Your task to perform on an android device: open wifi settings Image 0: 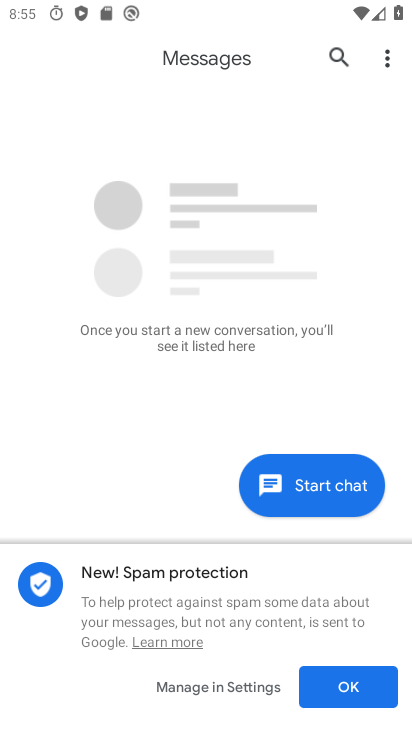
Step 0: press home button
Your task to perform on an android device: open wifi settings Image 1: 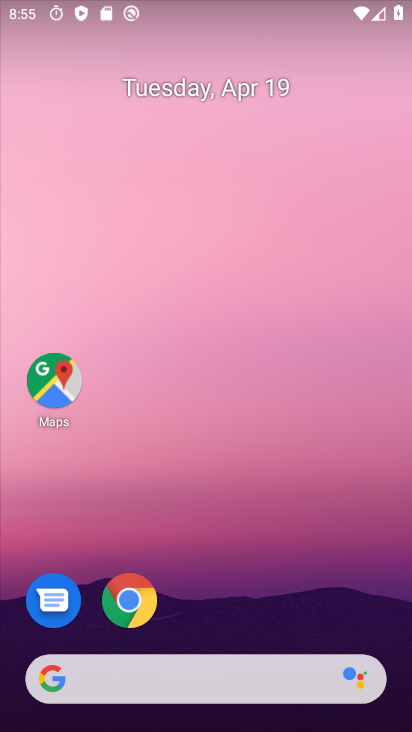
Step 1: drag from (172, 386) to (252, 7)
Your task to perform on an android device: open wifi settings Image 2: 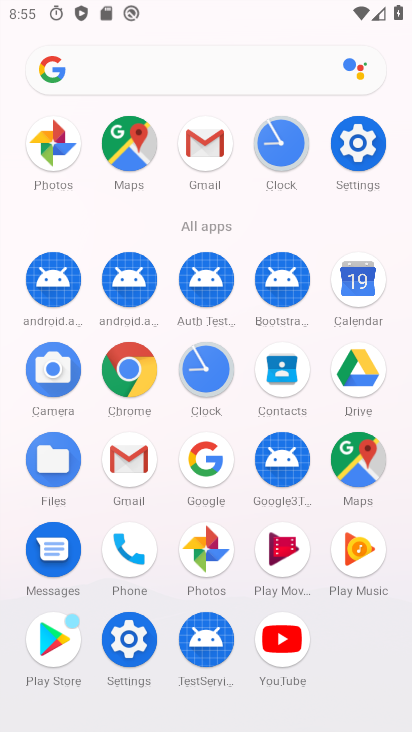
Step 2: click (358, 126)
Your task to perform on an android device: open wifi settings Image 3: 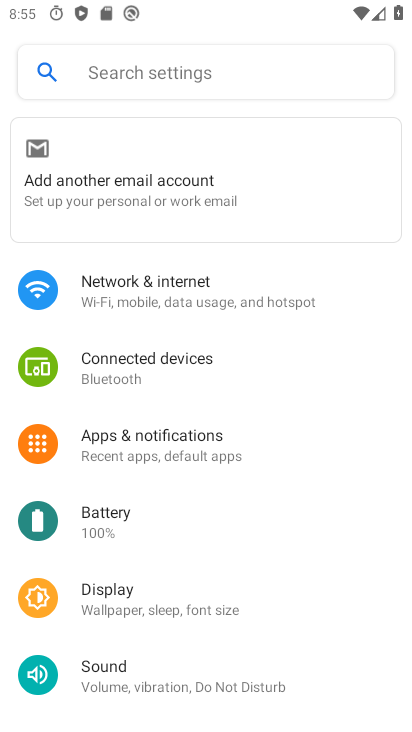
Step 3: click (157, 284)
Your task to perform on an android device: open wifi settings Image 4: 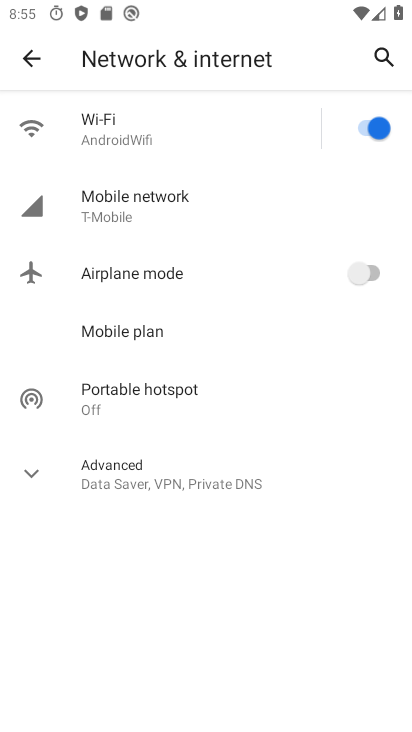
Step 4: click (176, 135)
Your task to perform on an android device: open wifi settings Image 5: 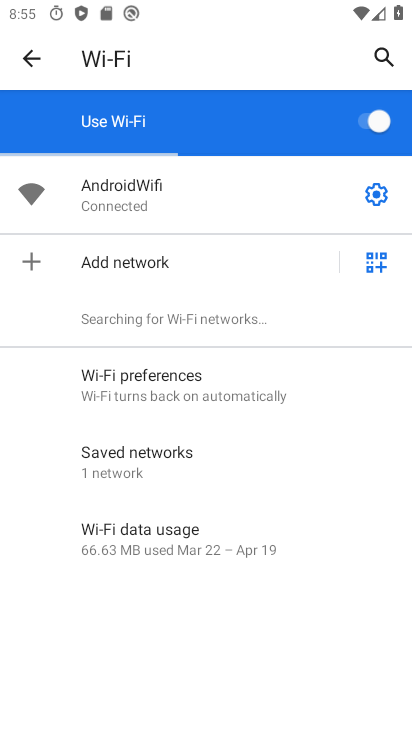
Step 5: task complete